Your task to perform on an android device: open a new tab in the chrome app Image 0: 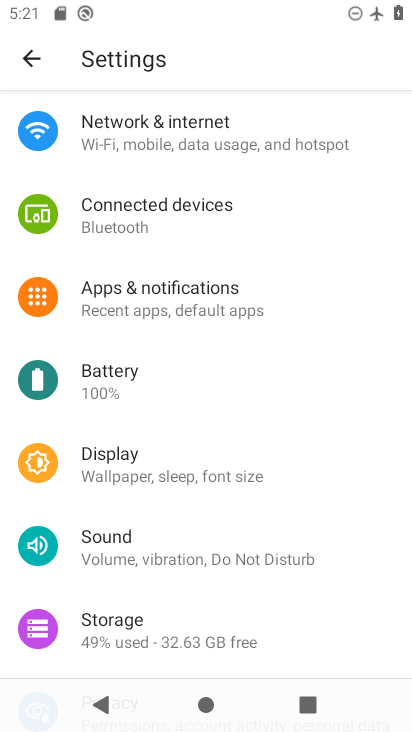
Step 0: press home button
Your task to perform on an android device: open a new tab in the chrome app Image 1: 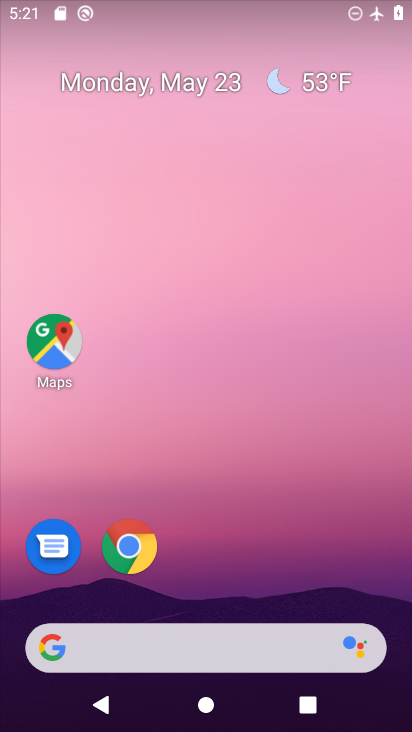
Step 1: click (135, 541)
Your task to perform on an android device: open a new tab in the chrome app Image 2: 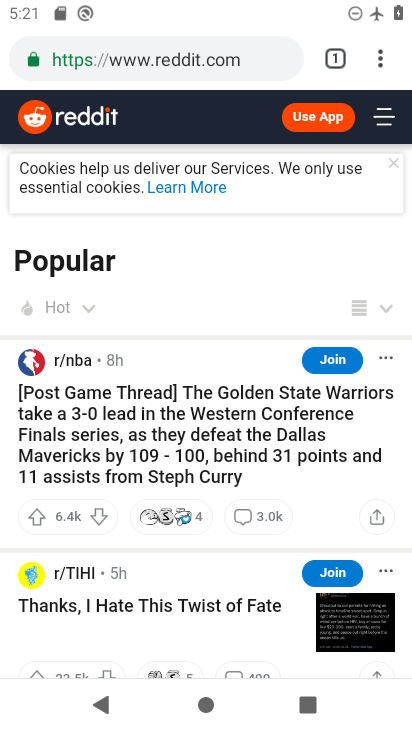
Step 2: click (342, 58)
Your task to perform on an android device: open a new tab in the chrome app Image 3: 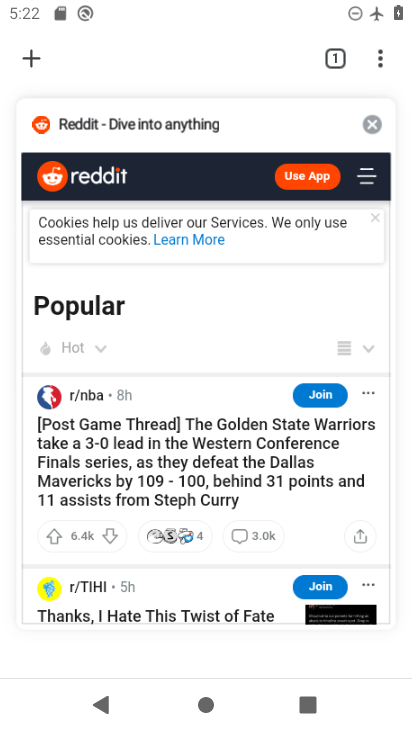
Step 3: click (32, 65)
Your task to perform on an android device: open a new tab in the chrome app Image 4: 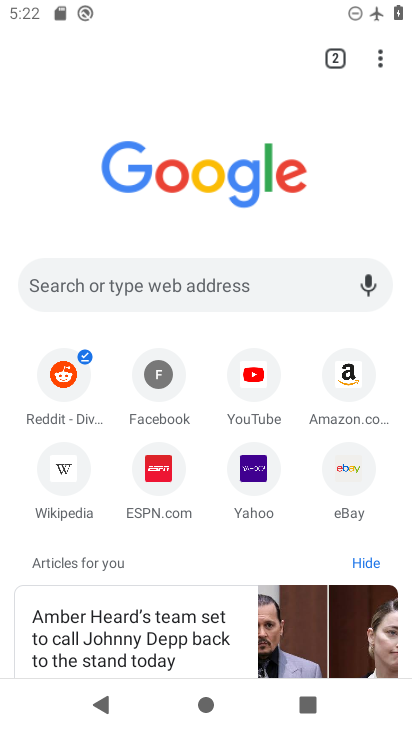
Step 4: task complete